Your task to perform on an android device: set default search engine in the chrome app Image 0: 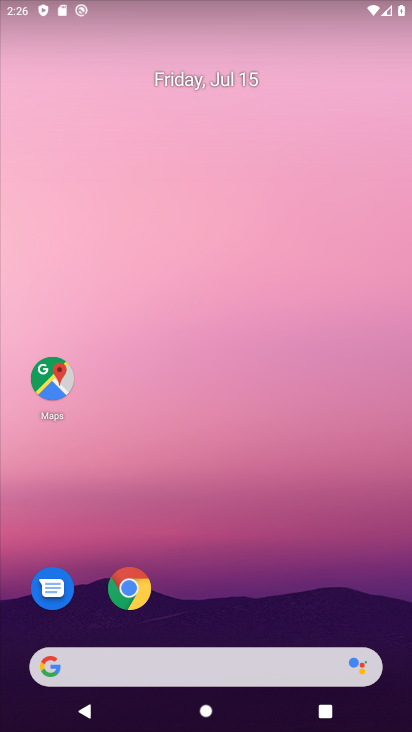
Step 0: click (120, 579)
Your task to perform on an android device: set default search engine in the chrome app Image 1: 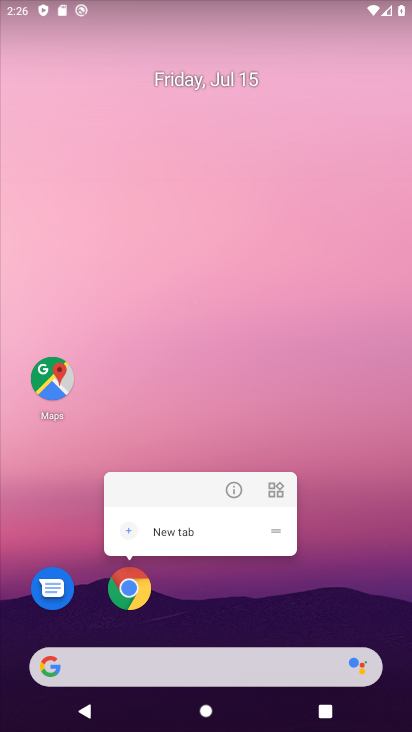
Step 1: click (136, 590)
Your task to perform on an android device: set default search engine in the chrome app Image 2: 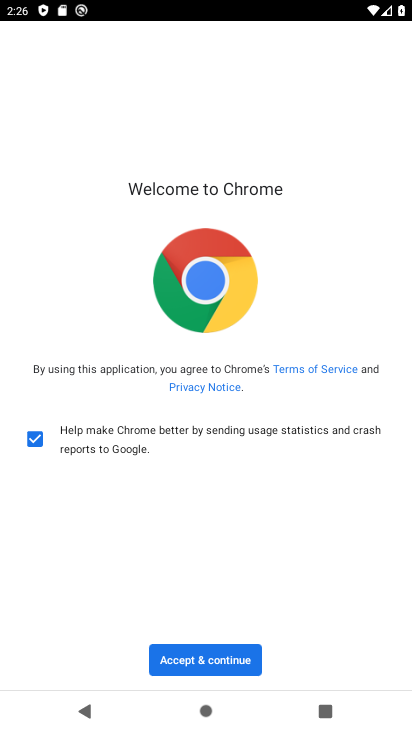
Step 2: click (199, 655)
Your task to perform on an android device: set default search engine in the chrome app Image 3: 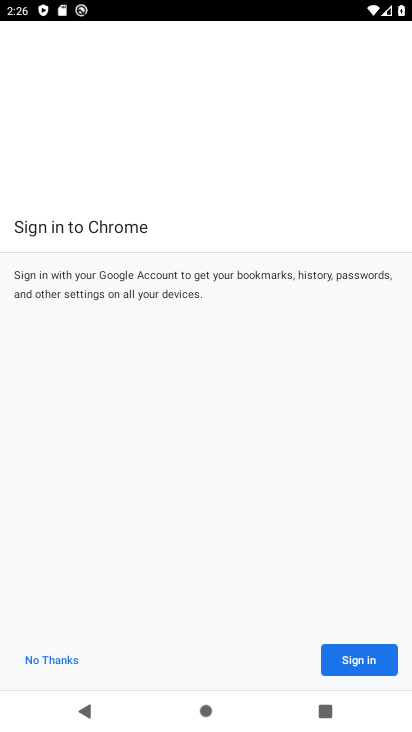
Step 3: click (350, 663)
Your task to perform on an android device: set default search engine in the chrome app Image 4: 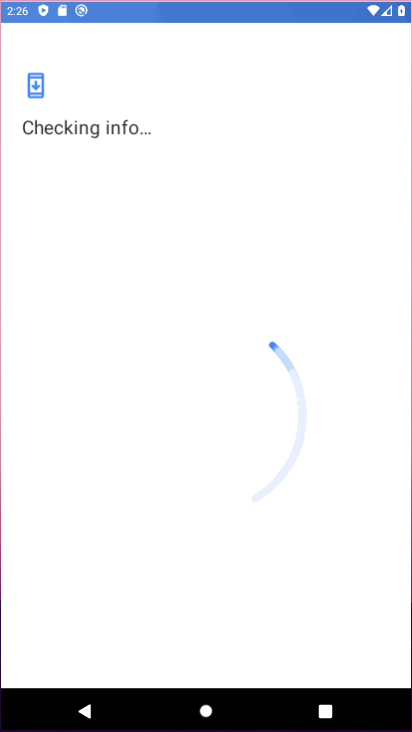
Step 4: click (366, 663)
Your task to perform on an android device: set default search engine in the chrome app Image 5: 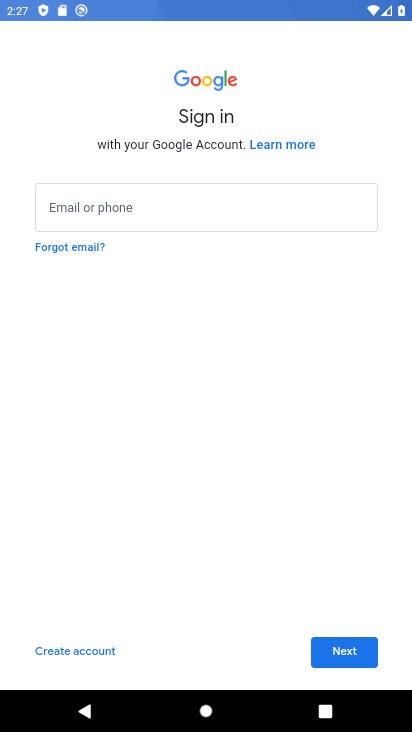
Step 5: task complete